Your task to perform on an android device: turn off javascript in the chrome app Image 0: 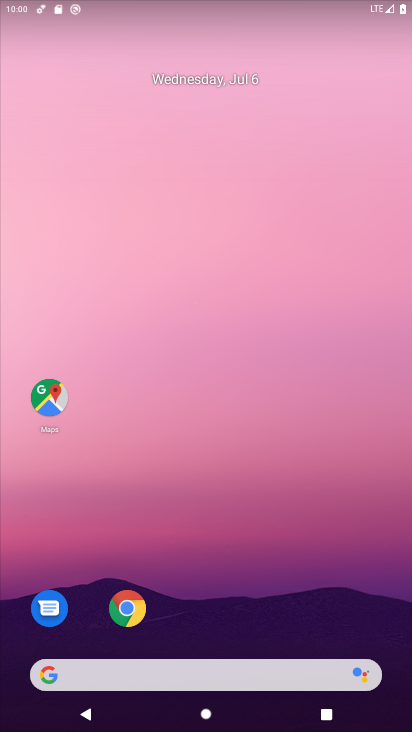
Step 0: drag from (215, 568) to (269, 7)
Your task to perform on an android device: turn off javascript in the chrome app Image 1: 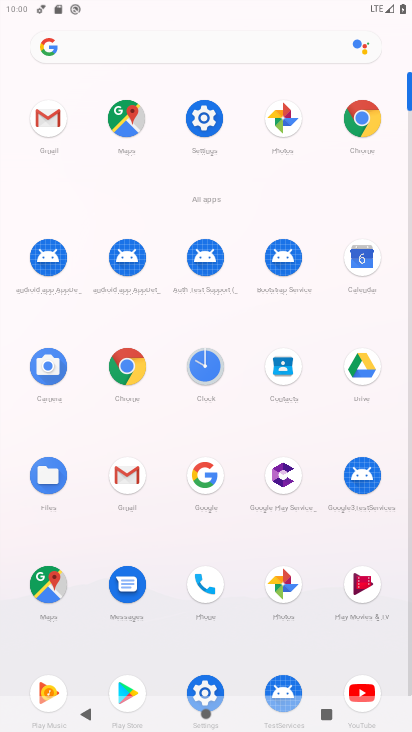
Step 1: click (135, 381)
Your task to perform on an android device: turn off javascript in the chrome app Image 2: 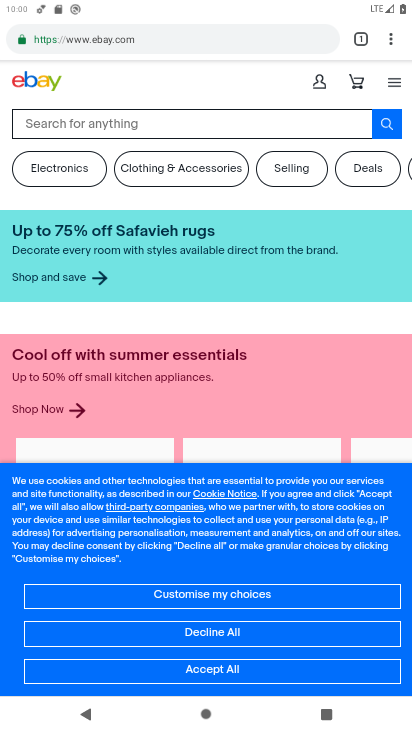
Step 2: click (394, 36)
Your task to perform on an android device: turn off javascript in the chrome app Image 3: 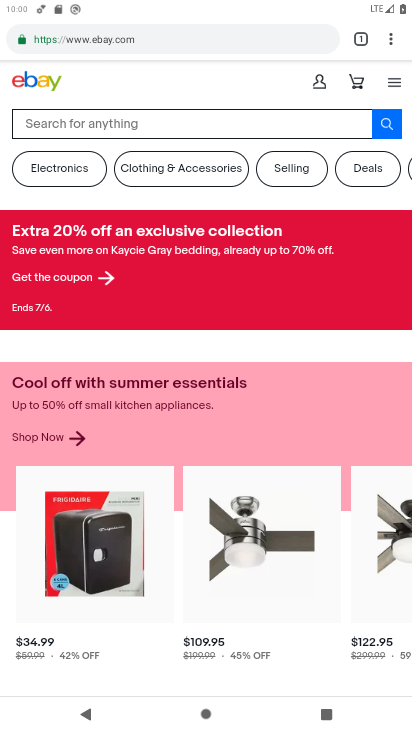
Step 3: click (395, 38)
Your task to perform on an android device: turn off javascript in the chrome app Image 4: 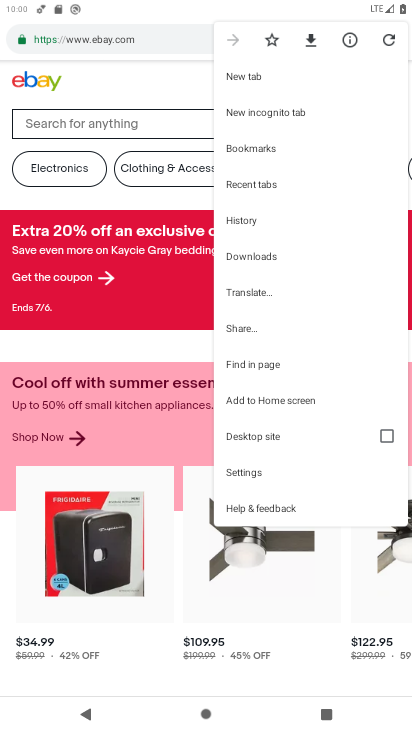
Step 4: click (241, 472)
Your task to perform on an android device: turn off javascript in the chrome app Image 5: 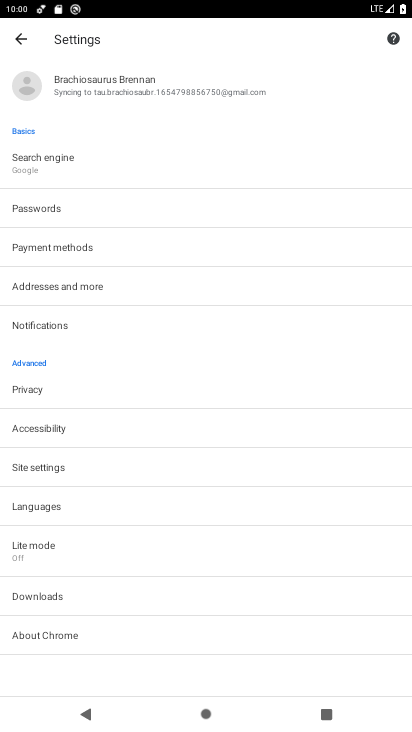
Step 5: click (61, 467)
Your task to perform on an android device: turn off javascript in the chrome app Image 6: 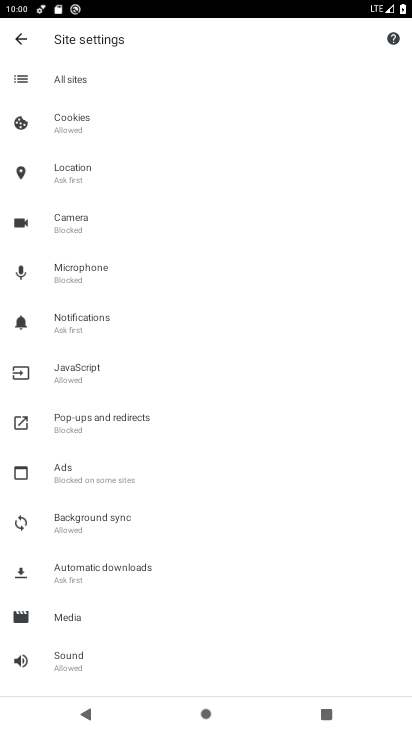
Step 6: click (79, 371)
Your task to perform on an android device: turn off javascript in the chrome app Image 7: 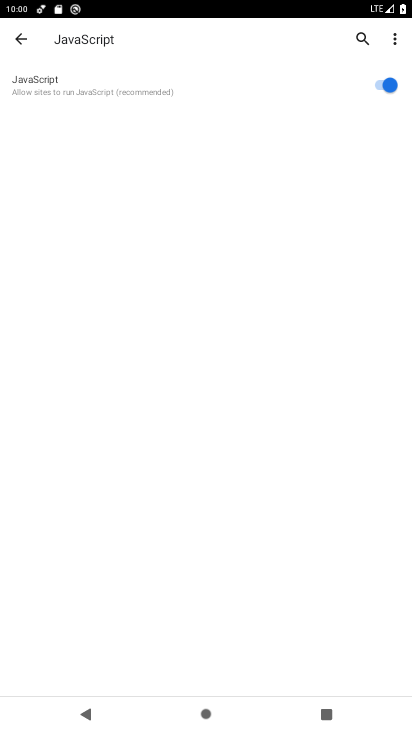
Step 7: click (370, 82)
Your task to perform on an android device: turn off javascript in the chrome app Image 8: 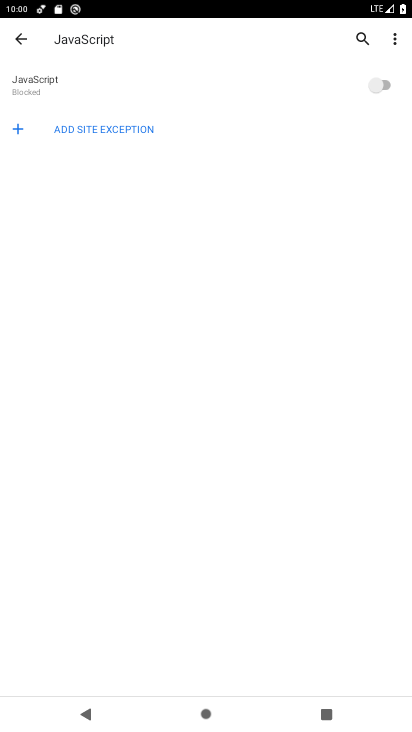
Step 8: task complete